Your task to perform on an android device: open chrome privacy settings Image 0: 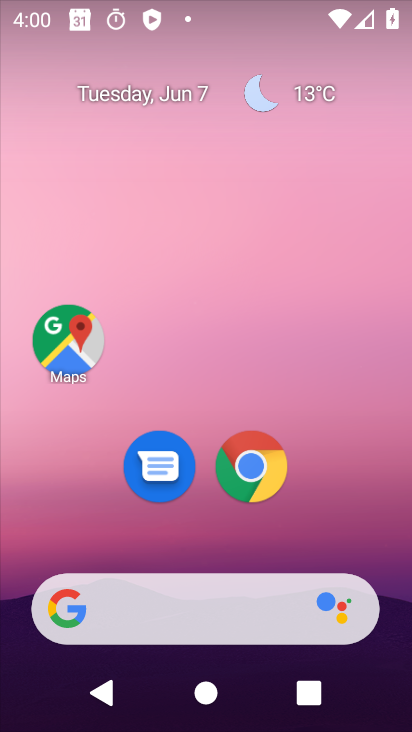
Step 0: click (276, 475)
Your task to perform on an android device: open chrome privacy settings Image 1: 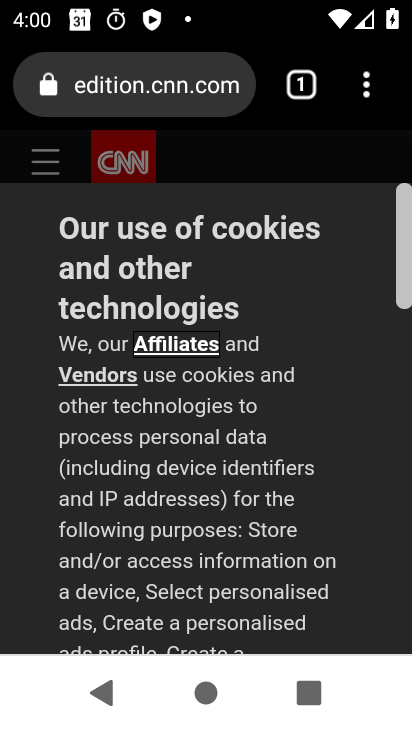
Step 1: click (370, 92)
Your task to perform on an android device: open chrome privacy settings Image 2: 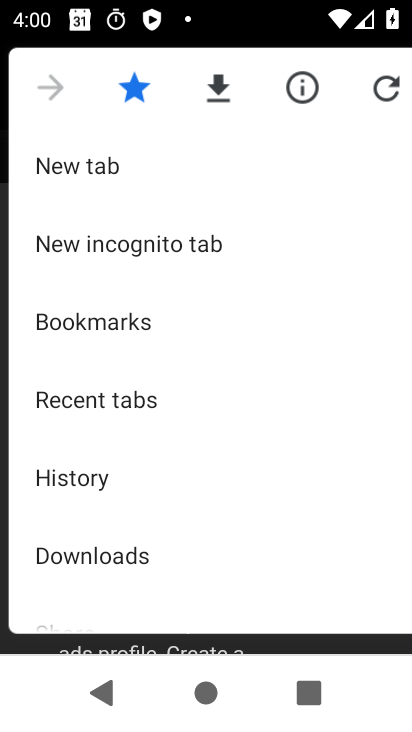
Step 2: drag from (218, 550) to (189, 0)
Your task to perform on an android device: open chrome privacy settings Image 3: 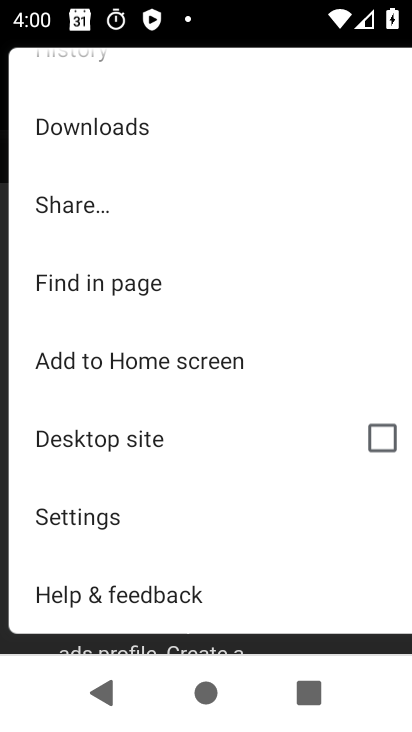
Step 3: click (144, 534)
Your task to perform on an android device: open chrome privacy settings Image 4: 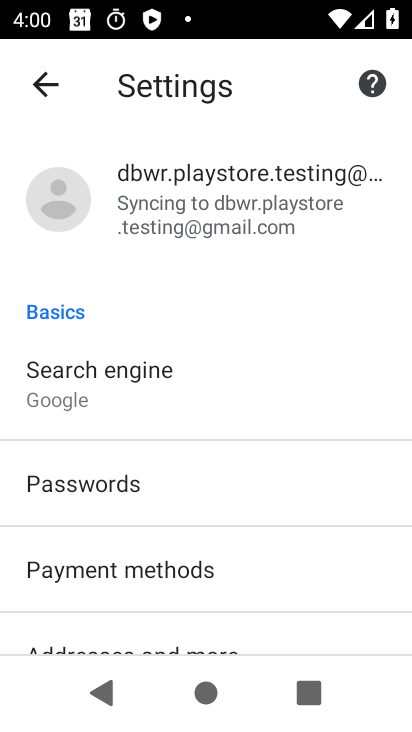
Step 4: drag from (252, 613) to (193, 62)
Your task to perform on an android device: open chrome privacy settings Image 5: 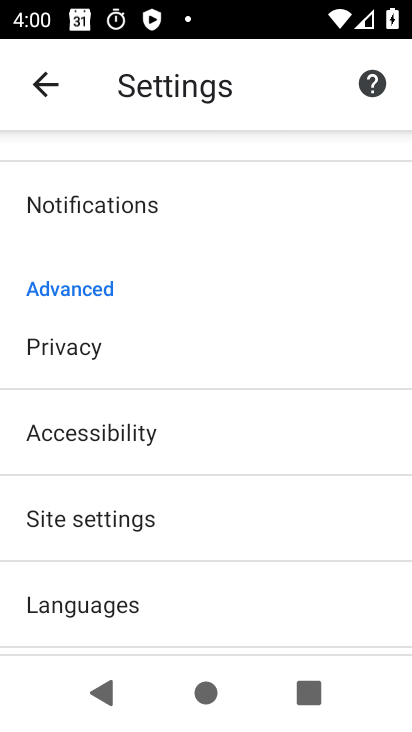
Step 5: click (166, 362)
Your task to perform on an android device: open chrome privacy settings Image 6: 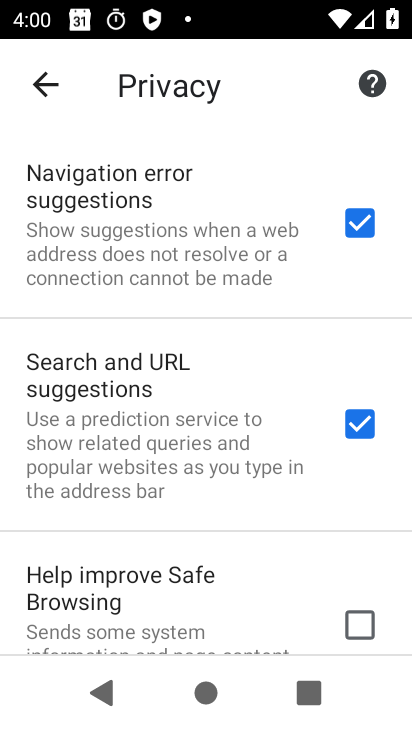
Step 6: task complete